Your task to perform on an android device: toggle data saver in the chrome app Image 0: 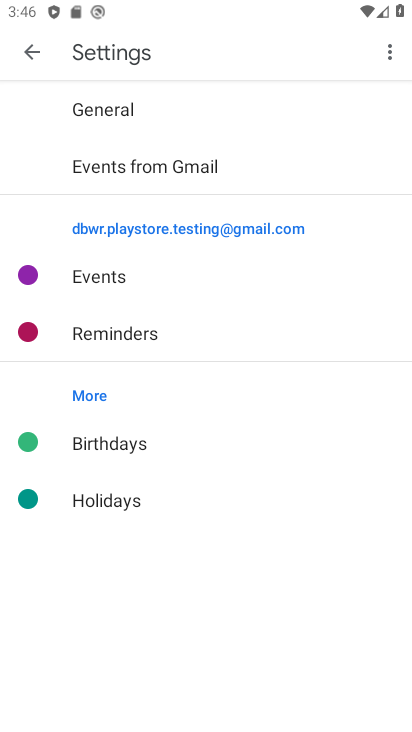
Step 0: press home button
Your task to perform on an android device: toggle data saver in the chrome app Image 1: 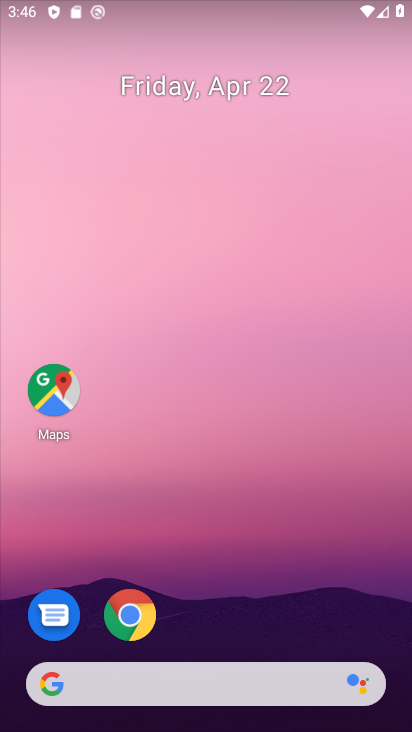
Step 1: click (135, 623)
Your task to perform on an android device: toggle data saver in the chrome app Image 2: 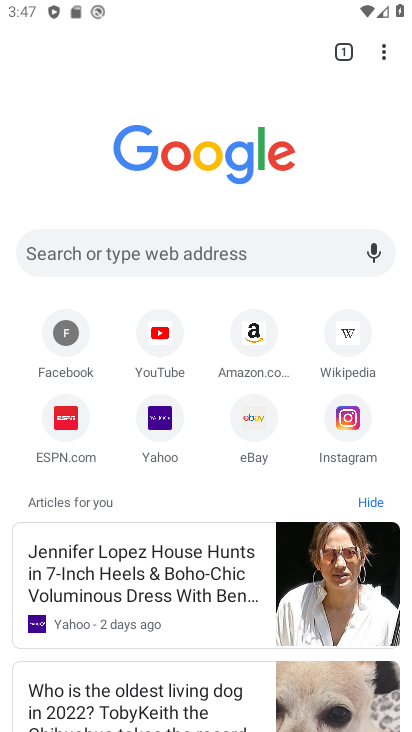
Step 2: click (378, 54)
Your task to perform on an android device: toggle data saver in the chrome app Image 3: 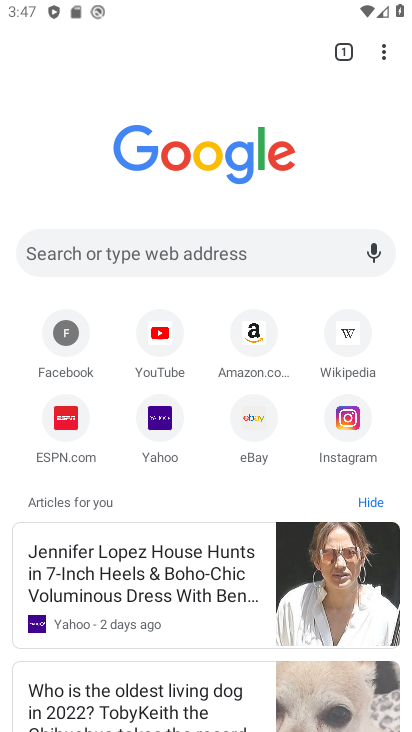
Step 3: drag from (384, 56) to (268, 433)
Your task to perform on an android device: toggle data saver in the chrome app Image 4: 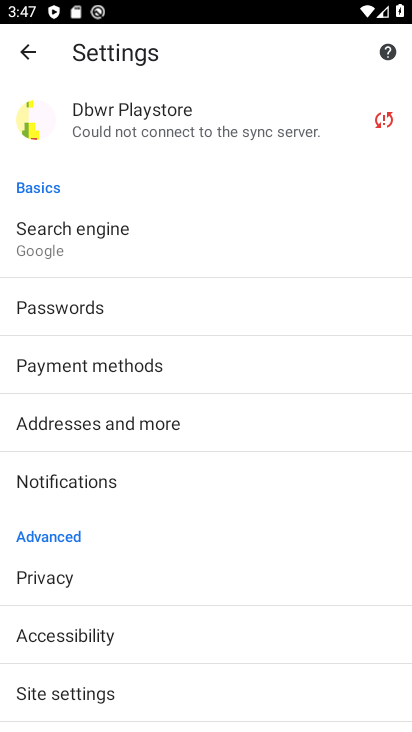
Step 4: drag from (201, 654) to (181, 362)
Your task to perform on an android device: toggle data saver in the chrome app Image 5: 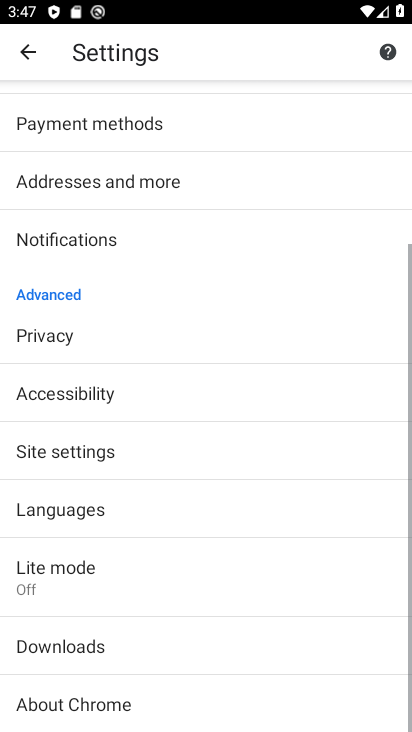
Step 5: click (78, 588)
Your task to perform on an android device: toggle data saver in the chrome app Image 6: 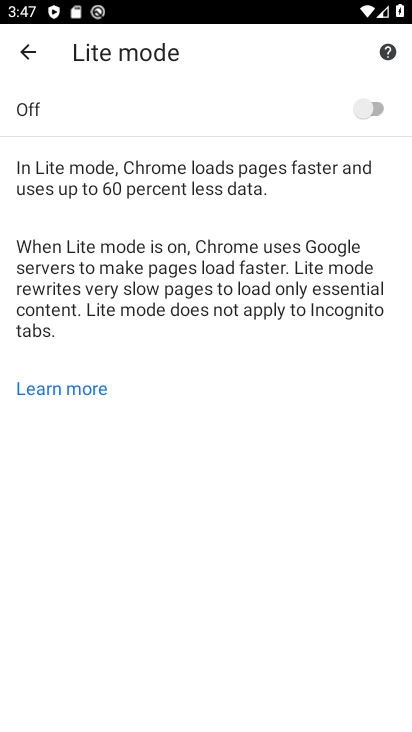
Step 6: click (380, 109)
Your task to perform on an android device: toggle data saver in the chrome app Image 7: 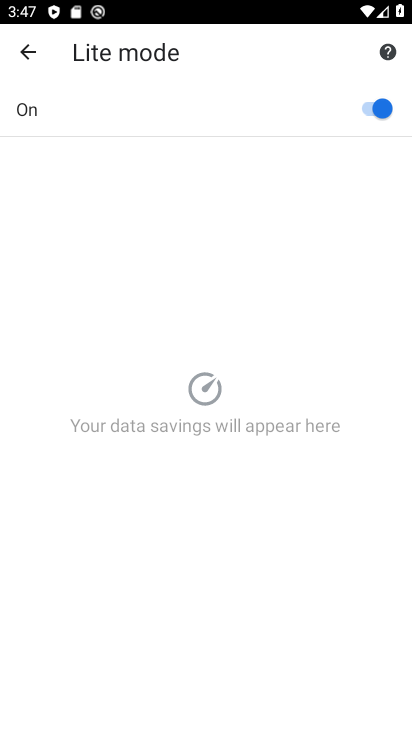
Step 7: task complete